Your task to perform on an android device: set default search engine in the chrome app Image 0: 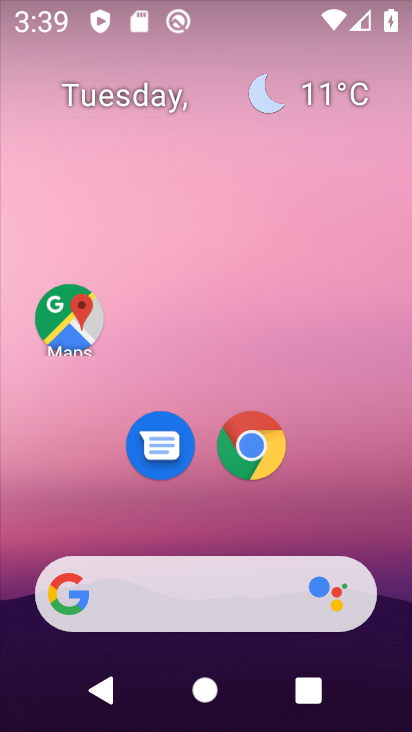
Step 0: drag from (111, 537) to (241, 52)
Your task to perform on an android device: set default search engine in the chrome app Image 1: 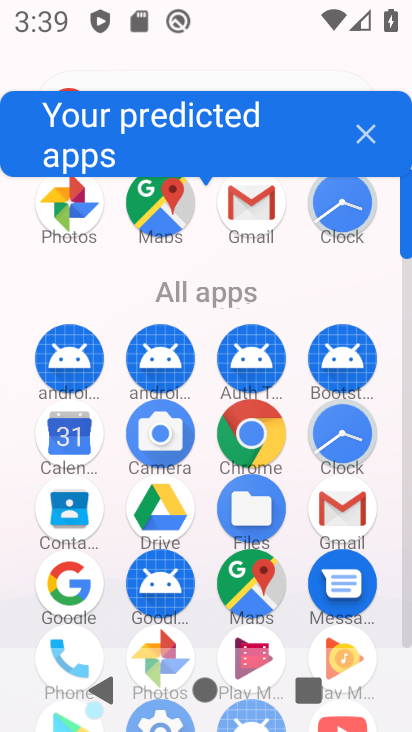
Step 1: drag from (191, 600) to (290, 260)
Your task to perform on an android device: set default search engine in the chrome app Image 2: 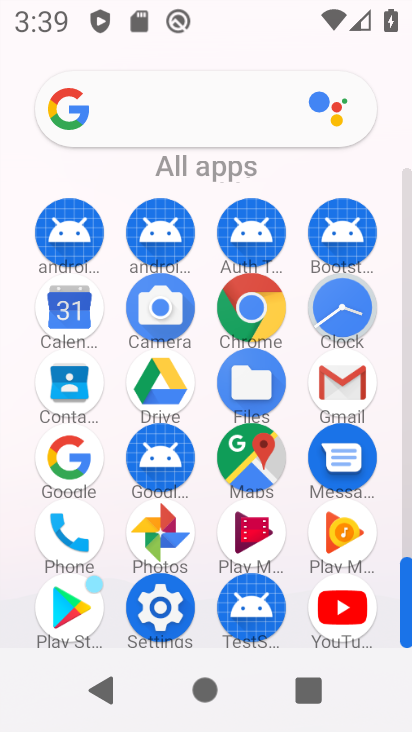
Step 2: click (244, 304)
Your task to perform on an android device: set default search engine in the chrome app Image 3: 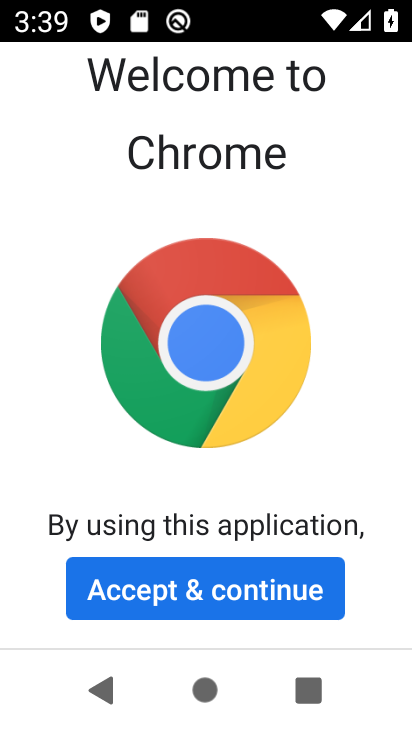
Step 3: click (306, 609)
Your task to perform on an android device: set default search engine in the chrome app Image 4: 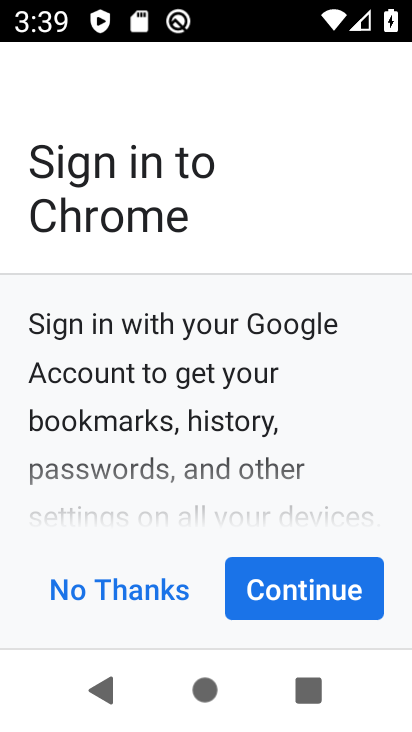
Step 4: click (313, 595)
Your task to perform on an android device: set default search engine in the chrome app Image 5: 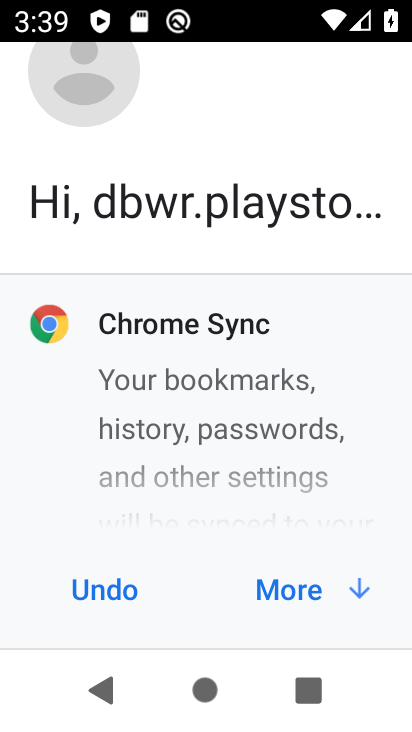
Step 5: click (313, 595)
Your task to perform on an android device: set default search engine in the chrome app Image 6: 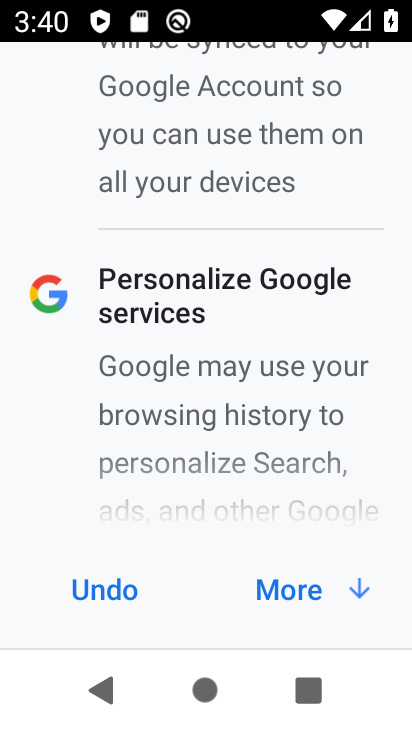
Step 6: click (313, 594)
Your task to perform on an android device: set default search engine in the chrome app Image 7: 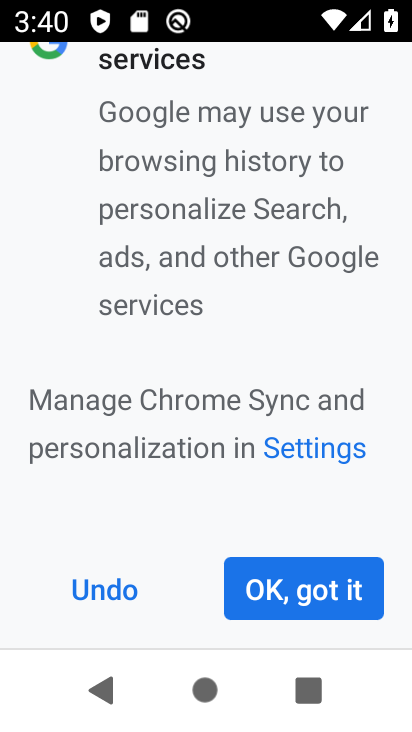
Step 7: click (310, 621)
Your task to perform on an android device: set default search engine in the chrome app Image 8: 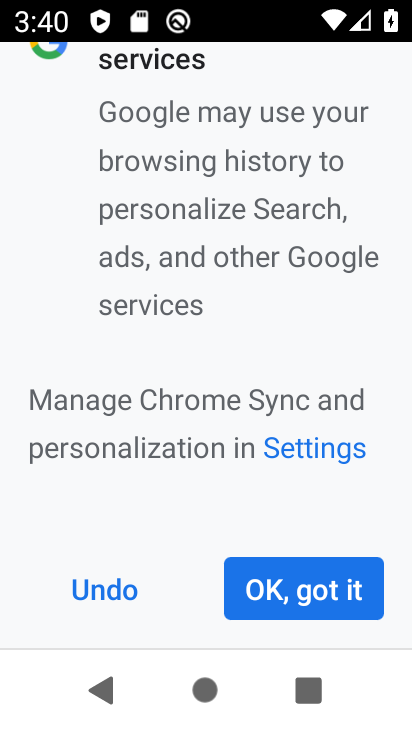
Step 8: click (322, 588)
Your task to perform on an android device: set default search engine in the chrome app Image 9: 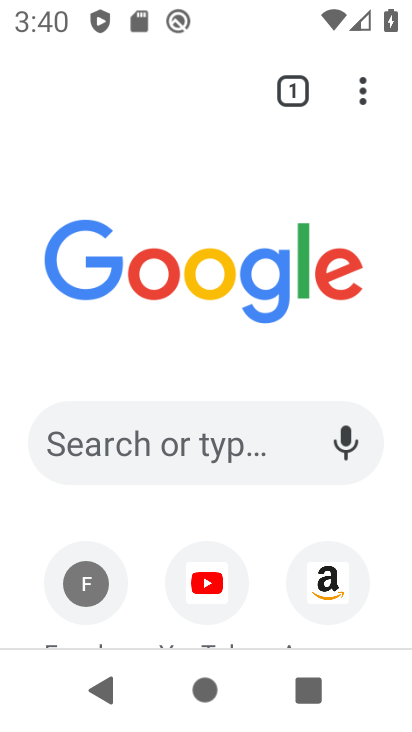
Step 9: drag from (376, 91) to (234, 487)
Your task to perform on an android device: set default search engine in the chrome app Image 10: 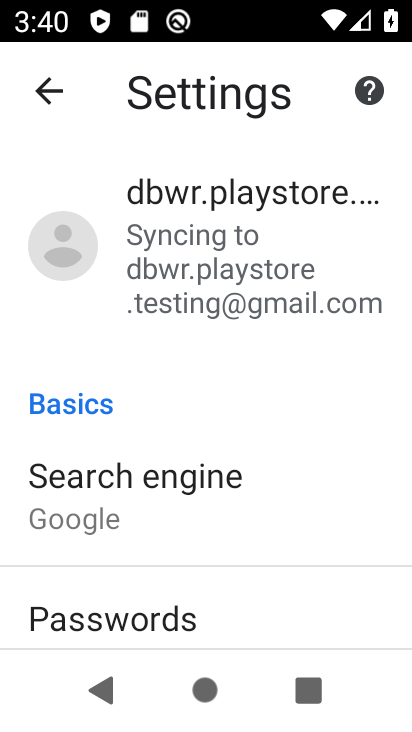
Step 10: click (142, 473)
Your task to perform on an android device: set default search engine in the chrome app Image 11: 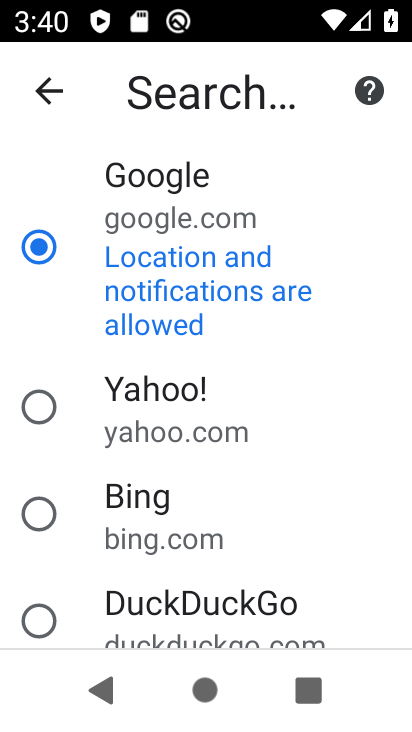
Step 11: task complete